Your task to perform on an android device: Open eBay Image 0: 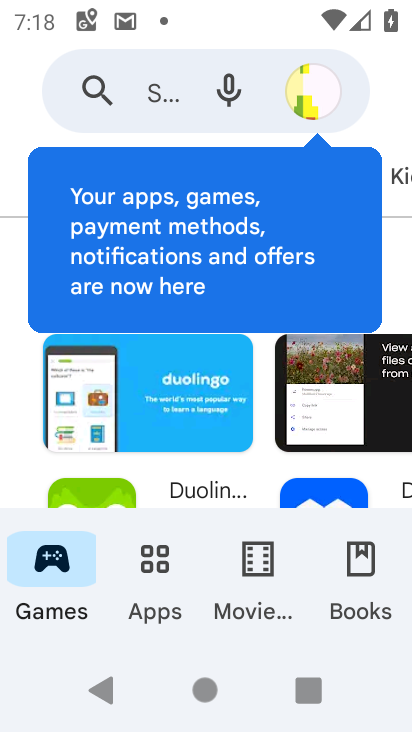
Step 0: press home button
Your task to perform on an android device: Open eBay Image 1: 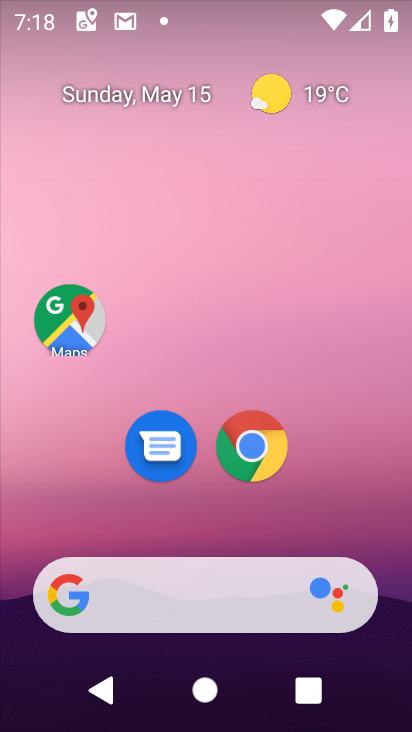
Step 1: drag from (247, 641) to (153, 148)
Your task to perform on an android device: Open eBay Image 2: 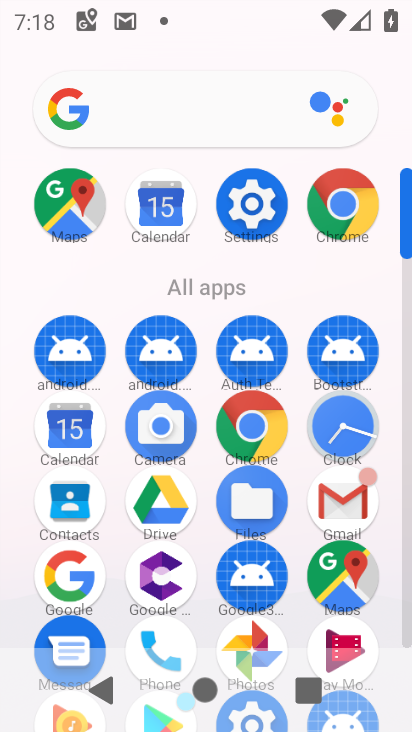
Step 2: click (349, 219)
Your task to perform on an android device: Open eBay Image 3: 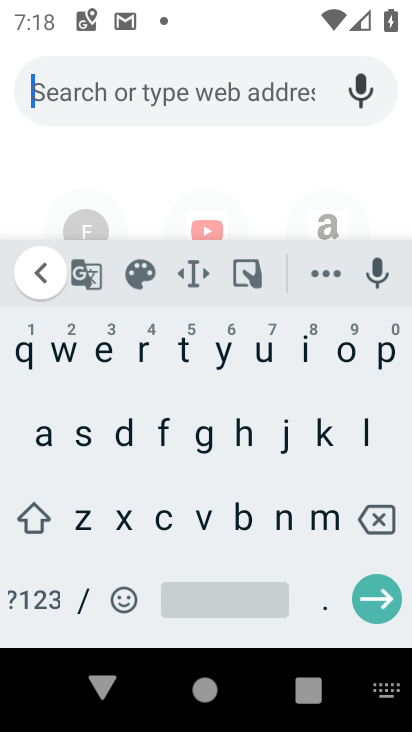
Step 3: click (99, 355)
Your task to perform on an android device: Open eBay Image 4: 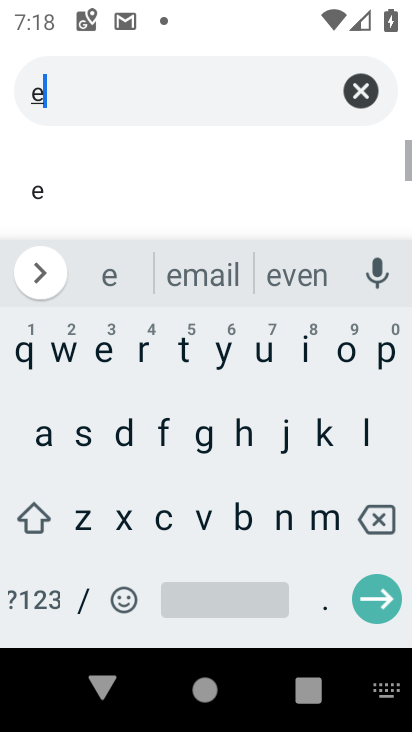
Step 4: click (244, 516)
Your task to perform on an android device: Open eBay Image 5: 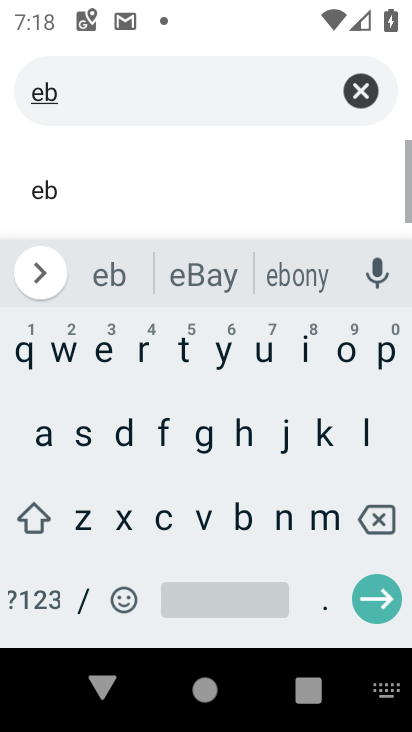
Step 5: click (41, 442)
Your task to perform on an android device: Open eBay Image 6: 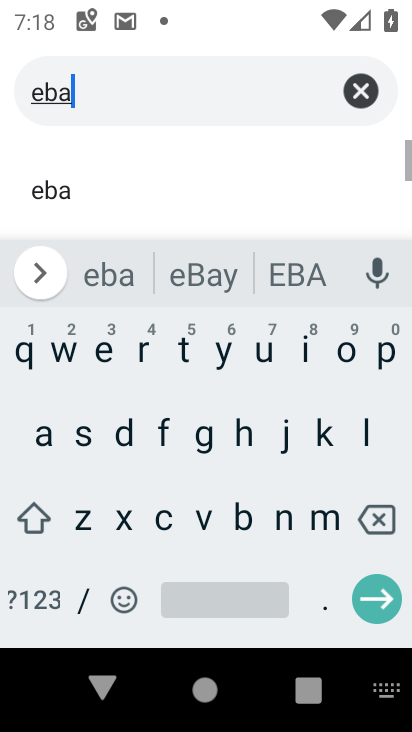
Step 6: click (226, 356)
Your task to perform on an android device: Open eBay Image 7: 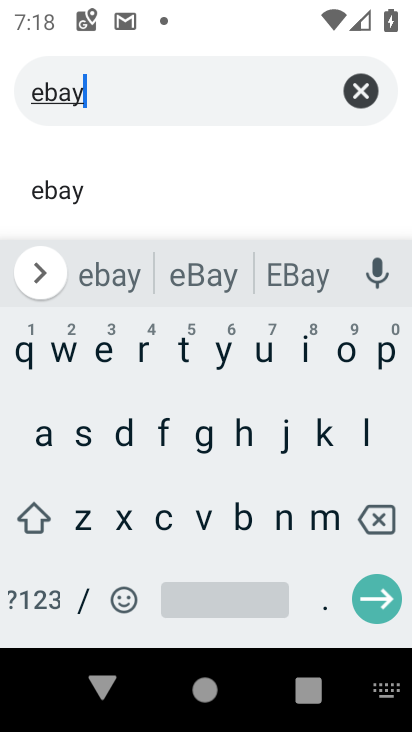
Step 7: click (111, 200)
Your task to perform on an android device: Open eBay Image 8: 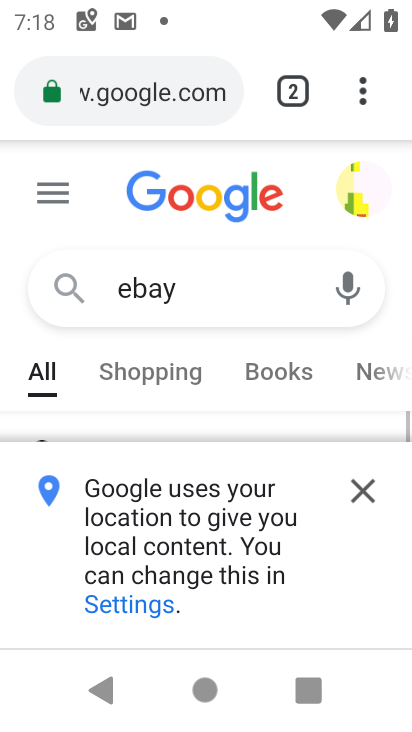
Step 8: click (371, 487)
Your task to perform on an android device: Open eBay Image 9: 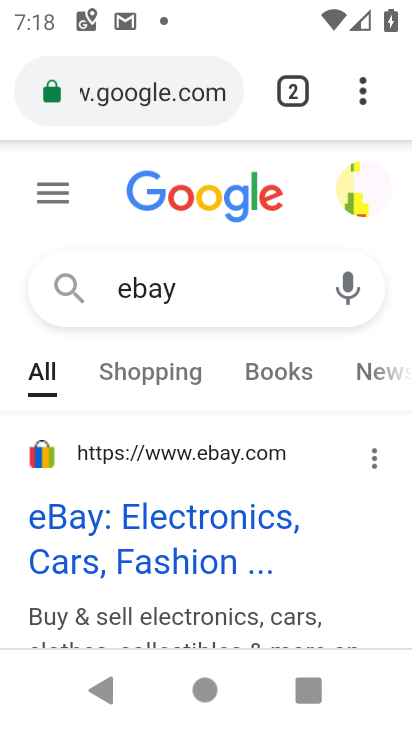
Step 9: click (150, 510)
Your task to perform on an android device: Open eBay Image 10: 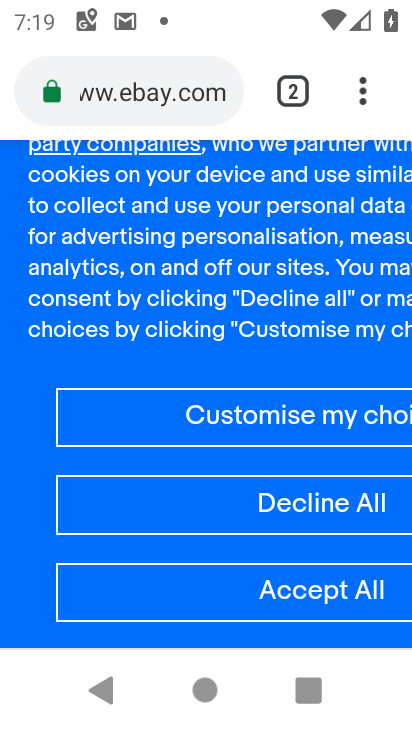
Step 10: click (269, 514)
Your task to perform on an android device: Open eBay Image 11: 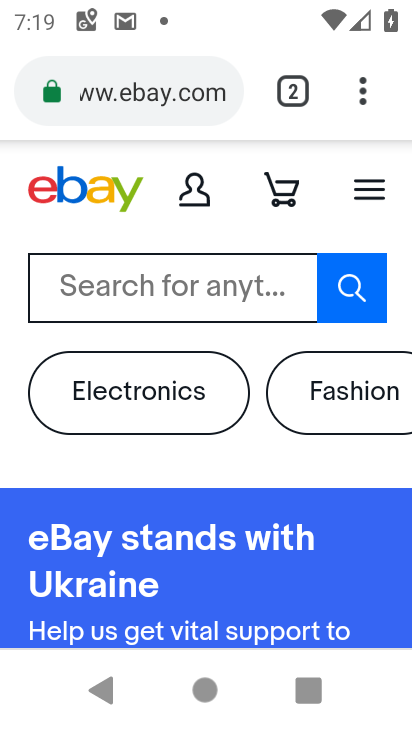
Step 11: task complete